Your task to perform on an android device: open app "Venmo" (install if not already installed), go to login, and select forgot password Image 0: 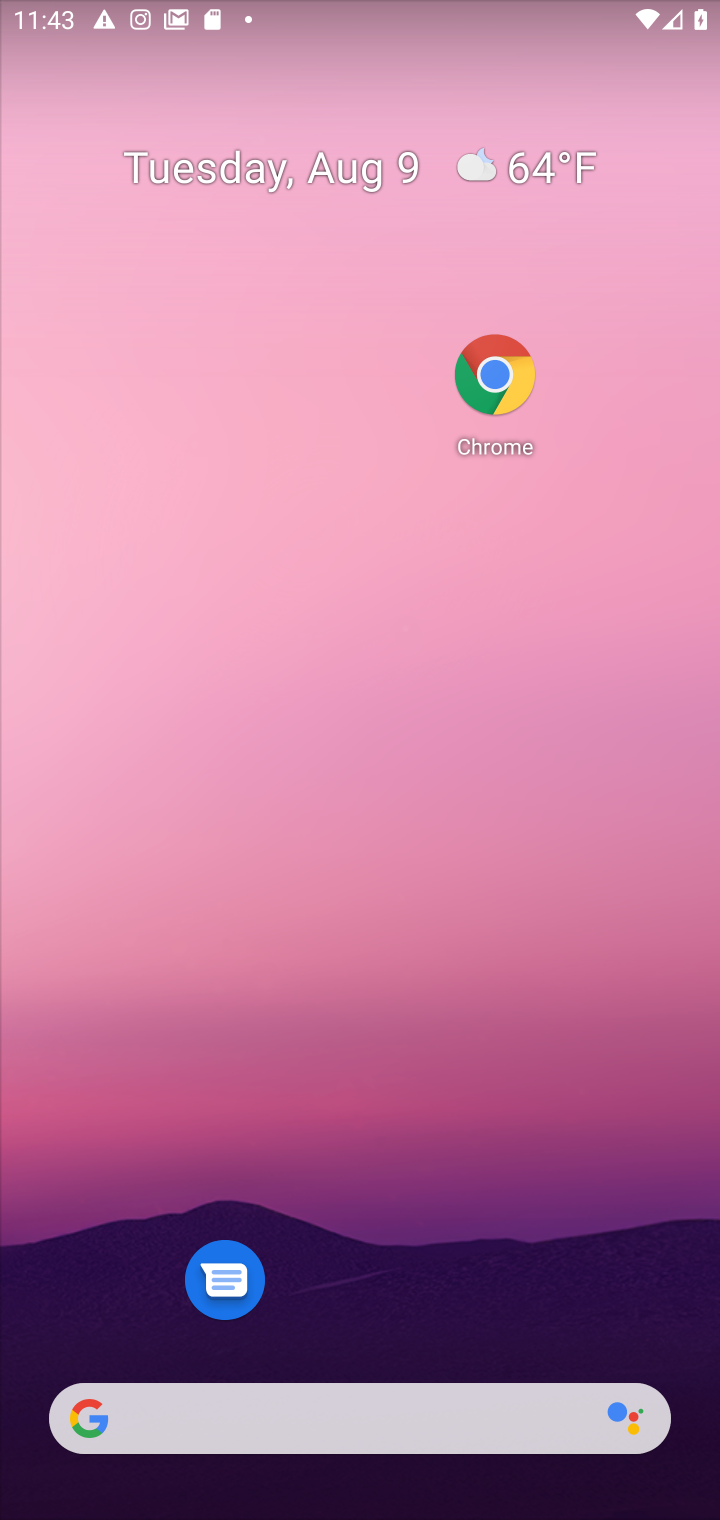
Step 0: drag from (404, 1385) to (396, 69)
Your task to perform on an android device: open app "Venmo" (install if not already installed), go to login, and select forgot password Image 1: 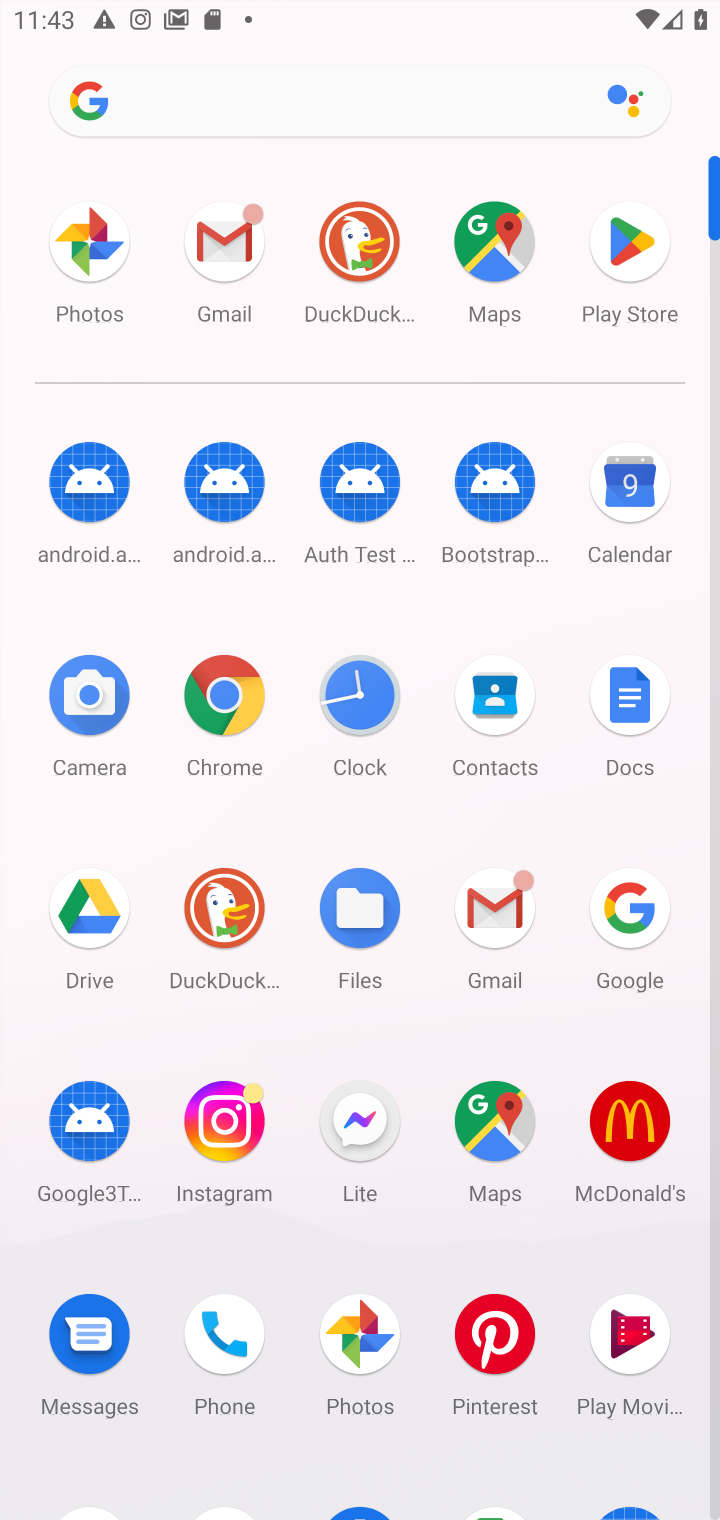
Step 1: drag from (305, 1244) to (305, 193)
Your task to perform on an android device: open app "Venmo" (install if not already installed), go to login, and select forgot password Image 2: 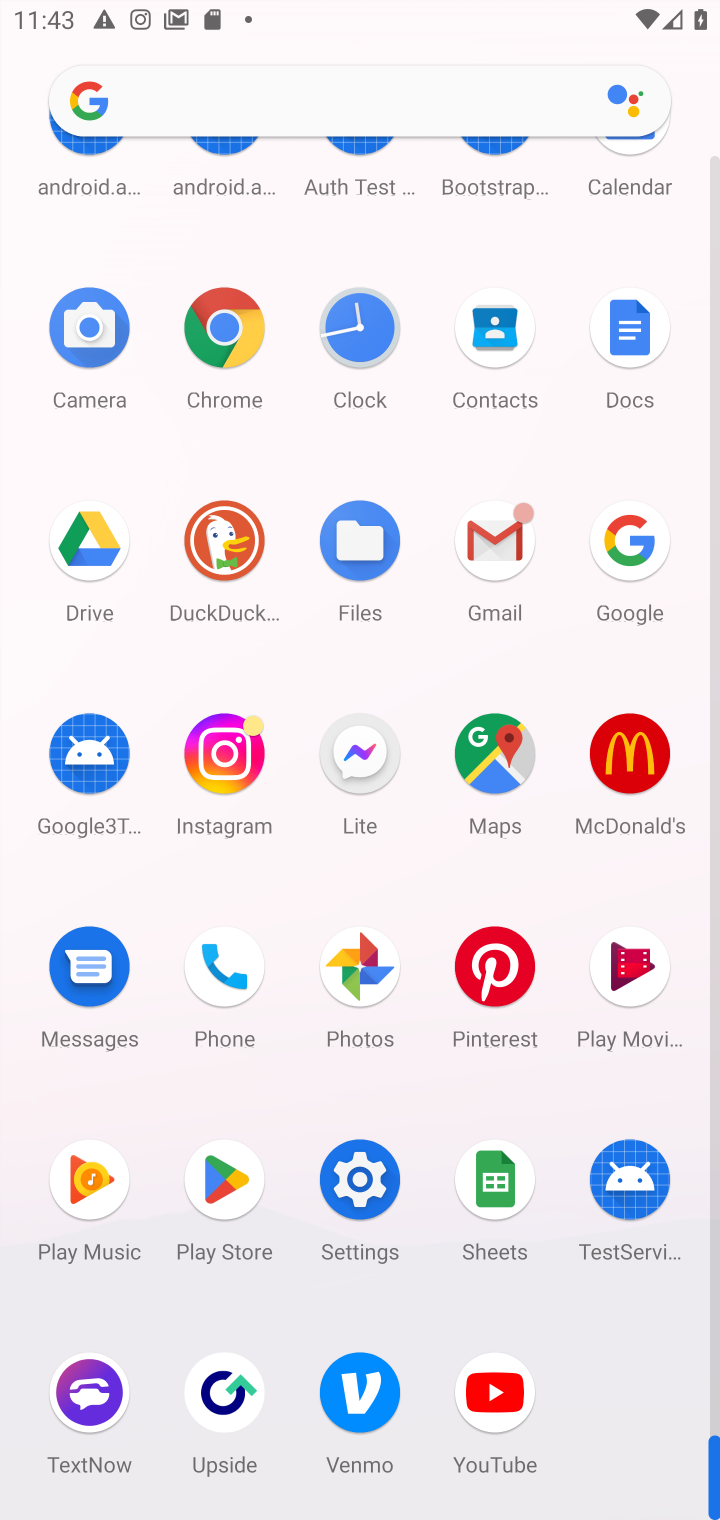
Step 2: click (216, 1182)
Your task to perform on an android device: open app "Venmo" (install if not already installed), go to login, and select forgot password Image 3: 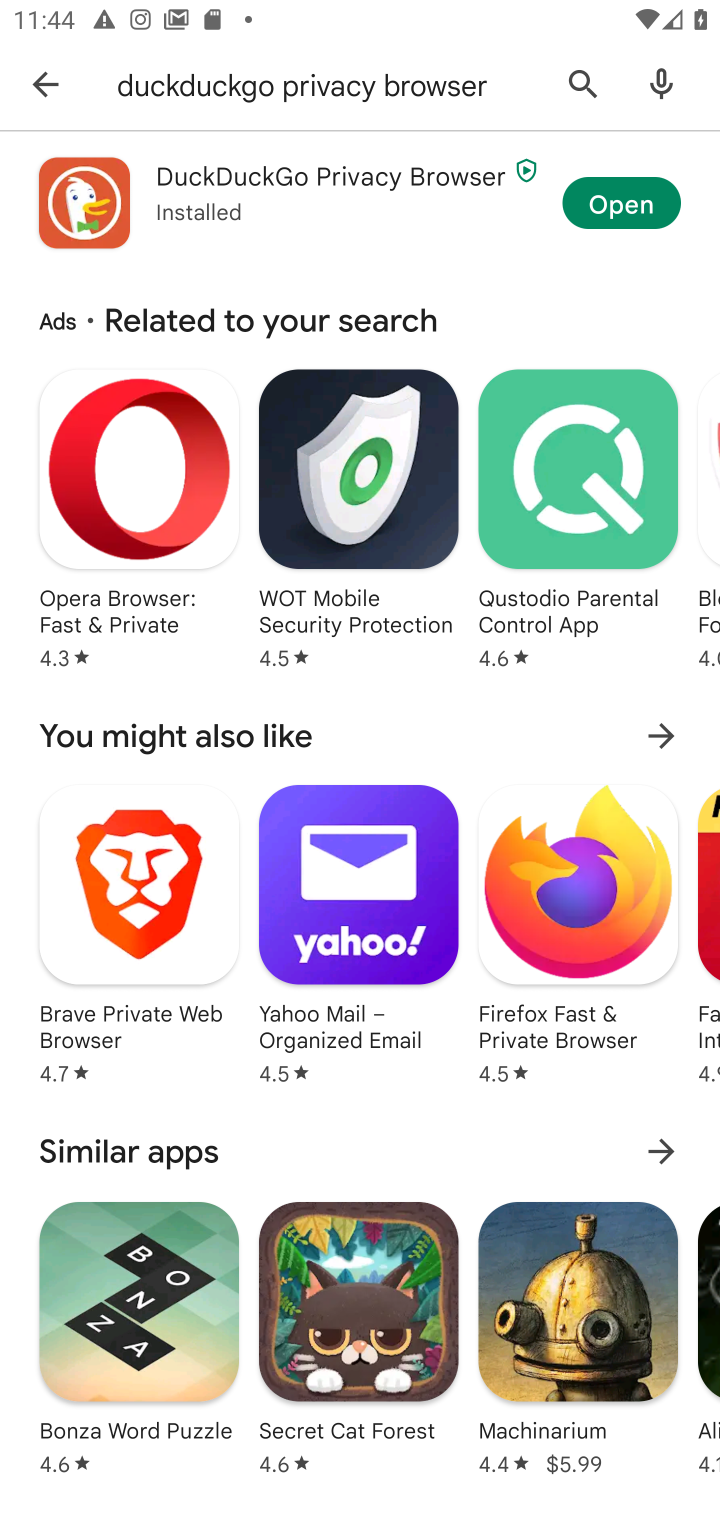
Step 3: click (35, 79)
Your task to perform on an android device: open app "Venmo" (install if not already installed), go to login, and select forgot password Image 4: 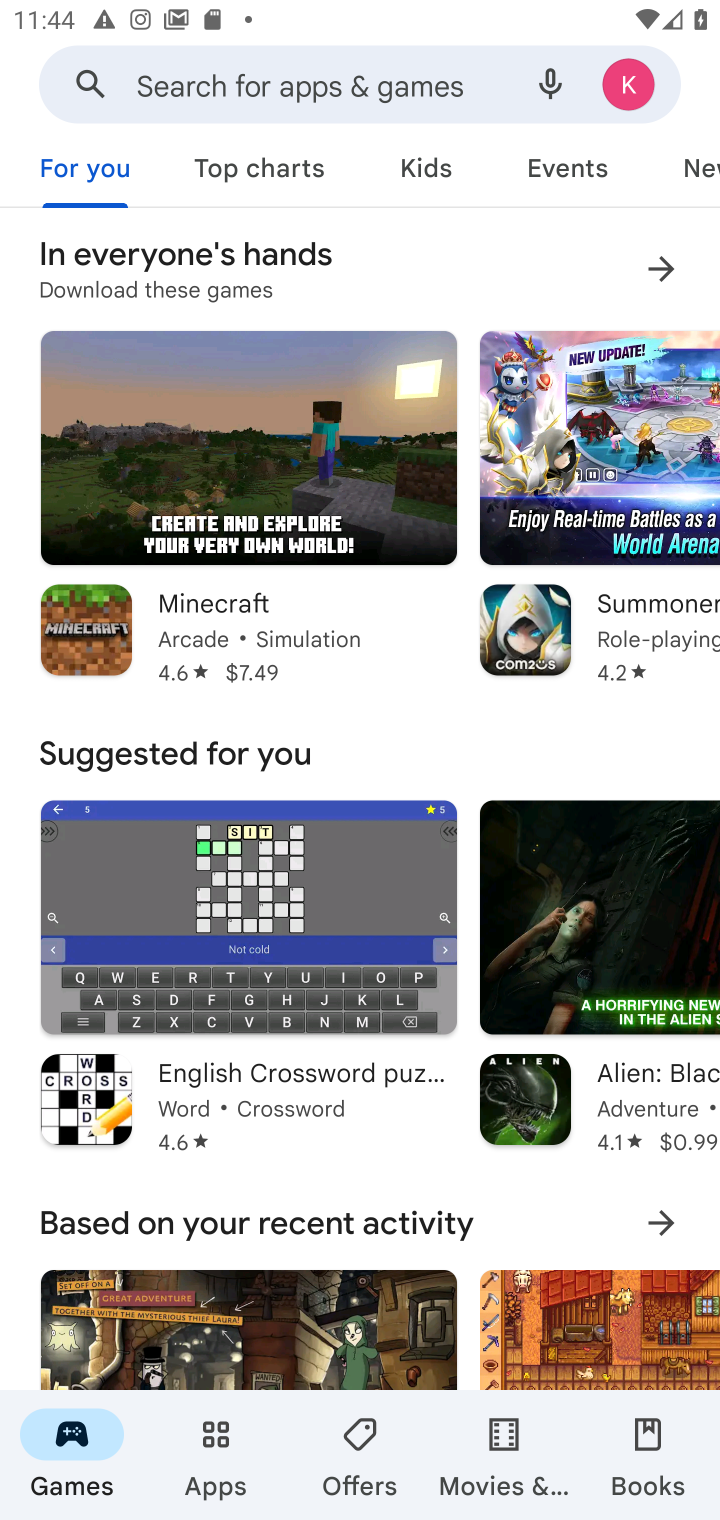
Step 4: click (285, 81)
Your task to perform on an android device: open app "Venmo" (install if not already installed), go to login, and select forgot password Image 5: 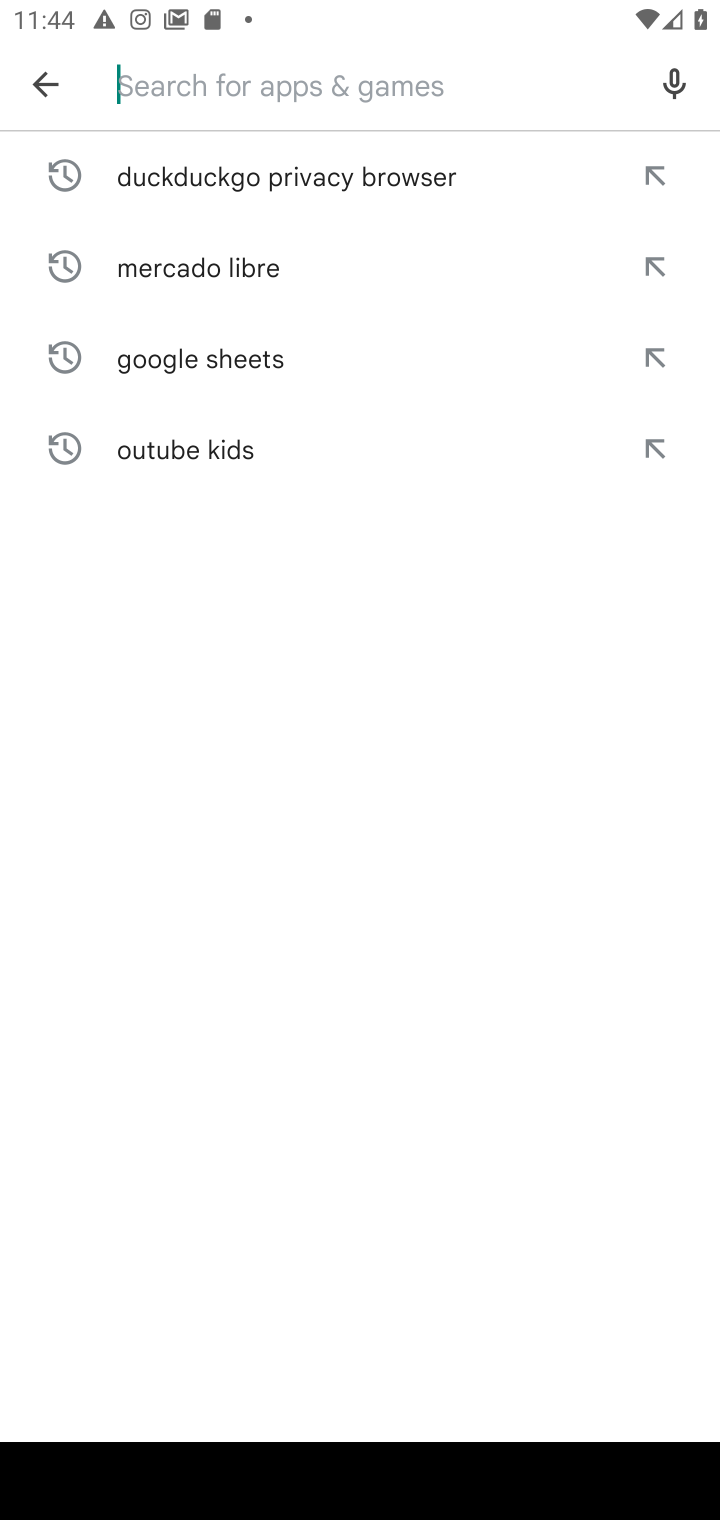
Step 5: type "Venmo"
Your task to perform on an android device: open app "Venmo" (install if not already installed), go to login, and select forgot password Image 6: 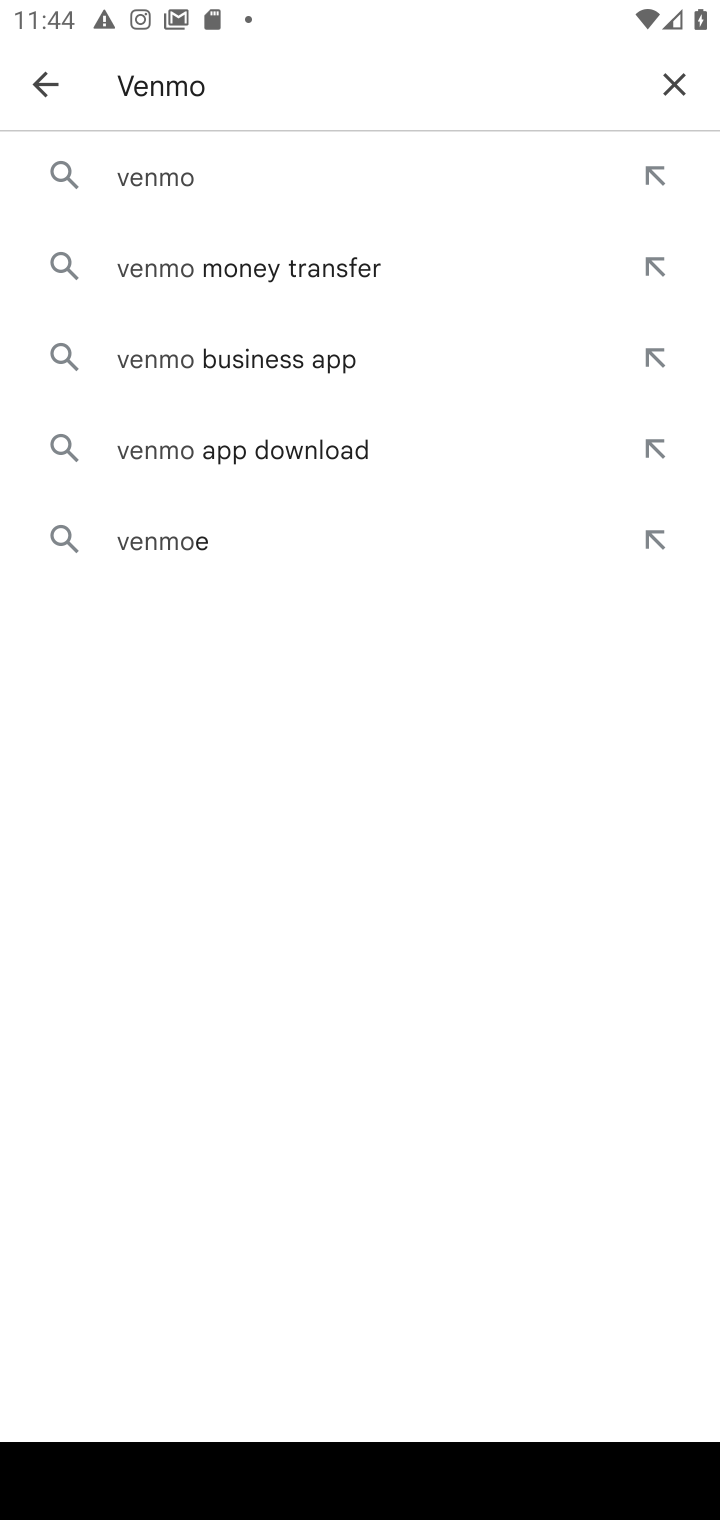
Step 6: click (232, 178)
Your task to perform on an android device: open app "Venmo" (install if not already installed), go to login, and select forgot password Image 7: 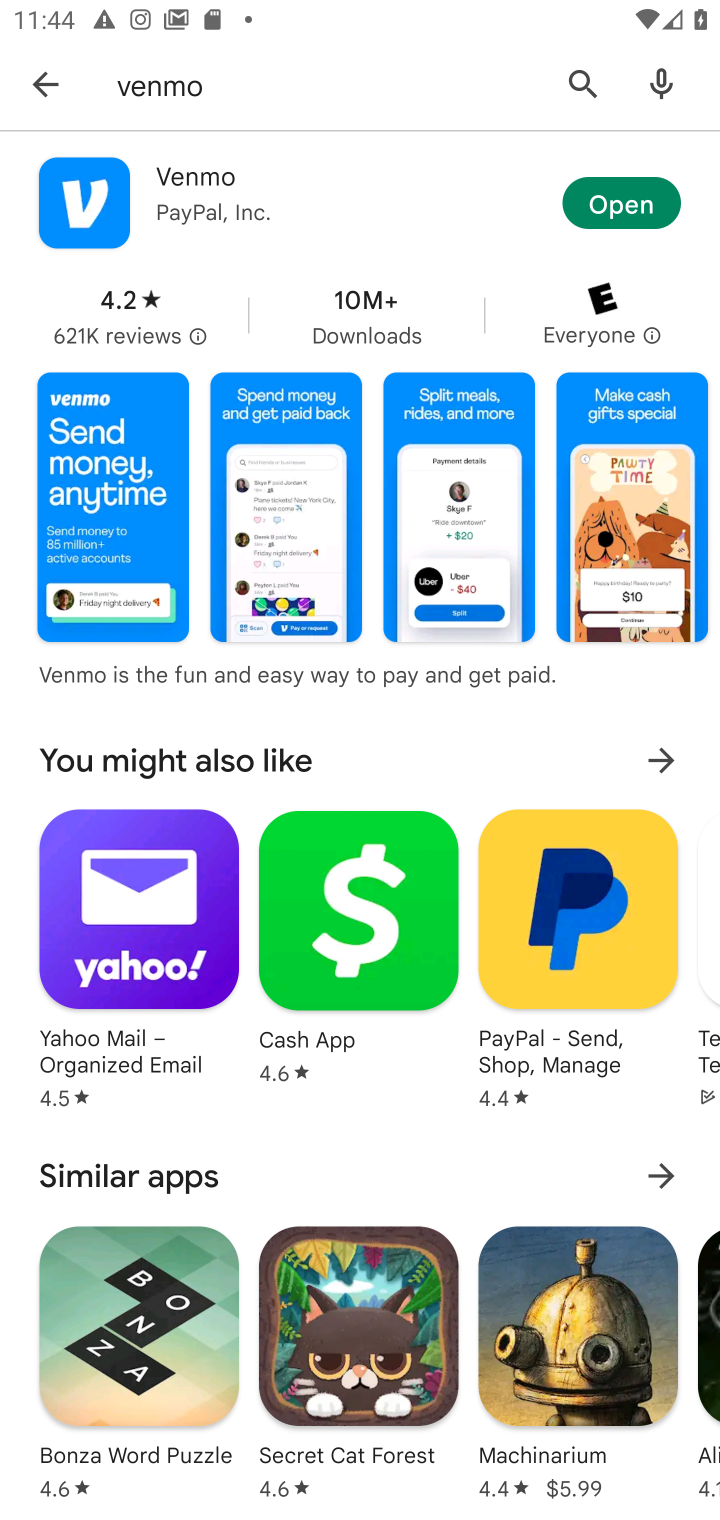
Step 7: click (645, 210)
Your task to perform on an android device: open app "Venmo" (install if not already installed), go to login, and select forgot password Image 8: 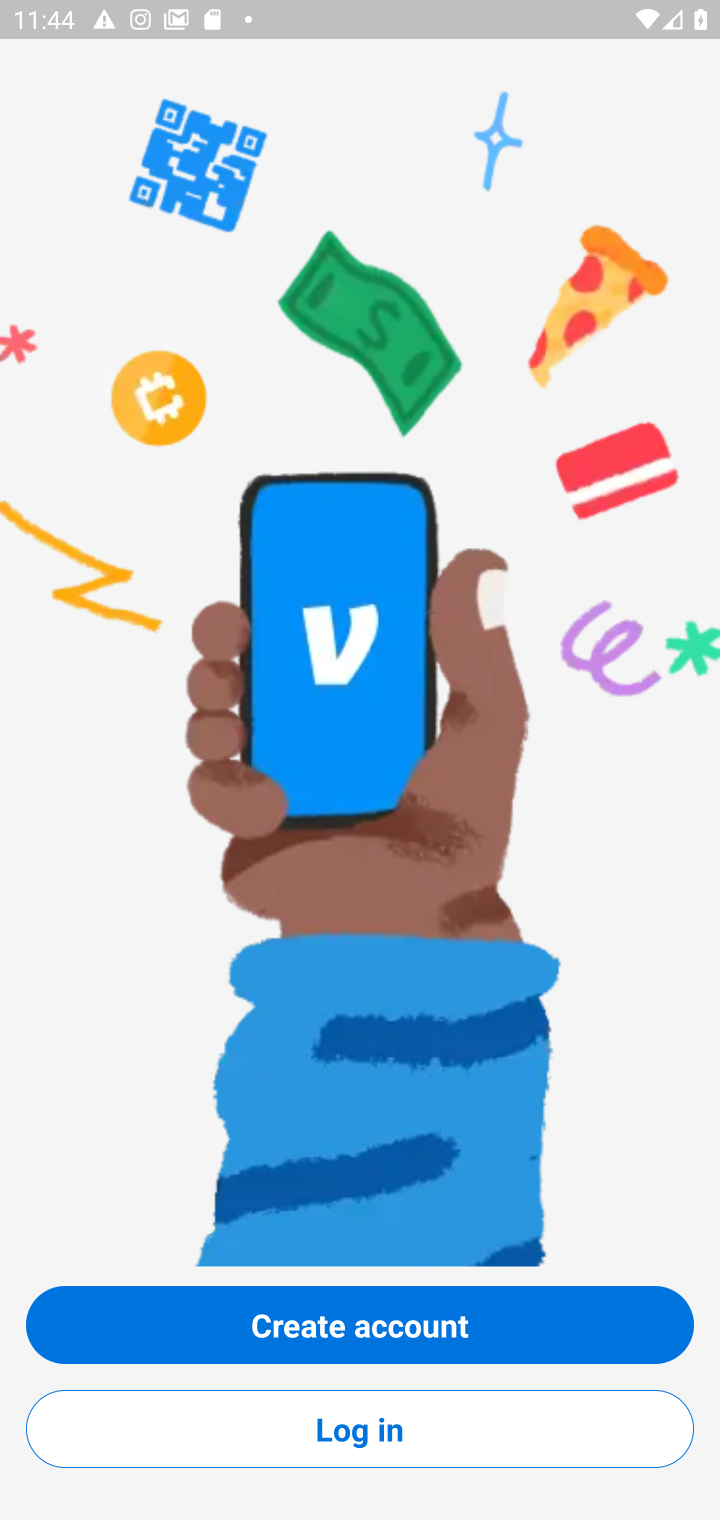
Step 8: click (404, 1440)
Your task to perform on an android device: open app "Venmo" (install if not already installed), go to login, and select forgot password Image 9: 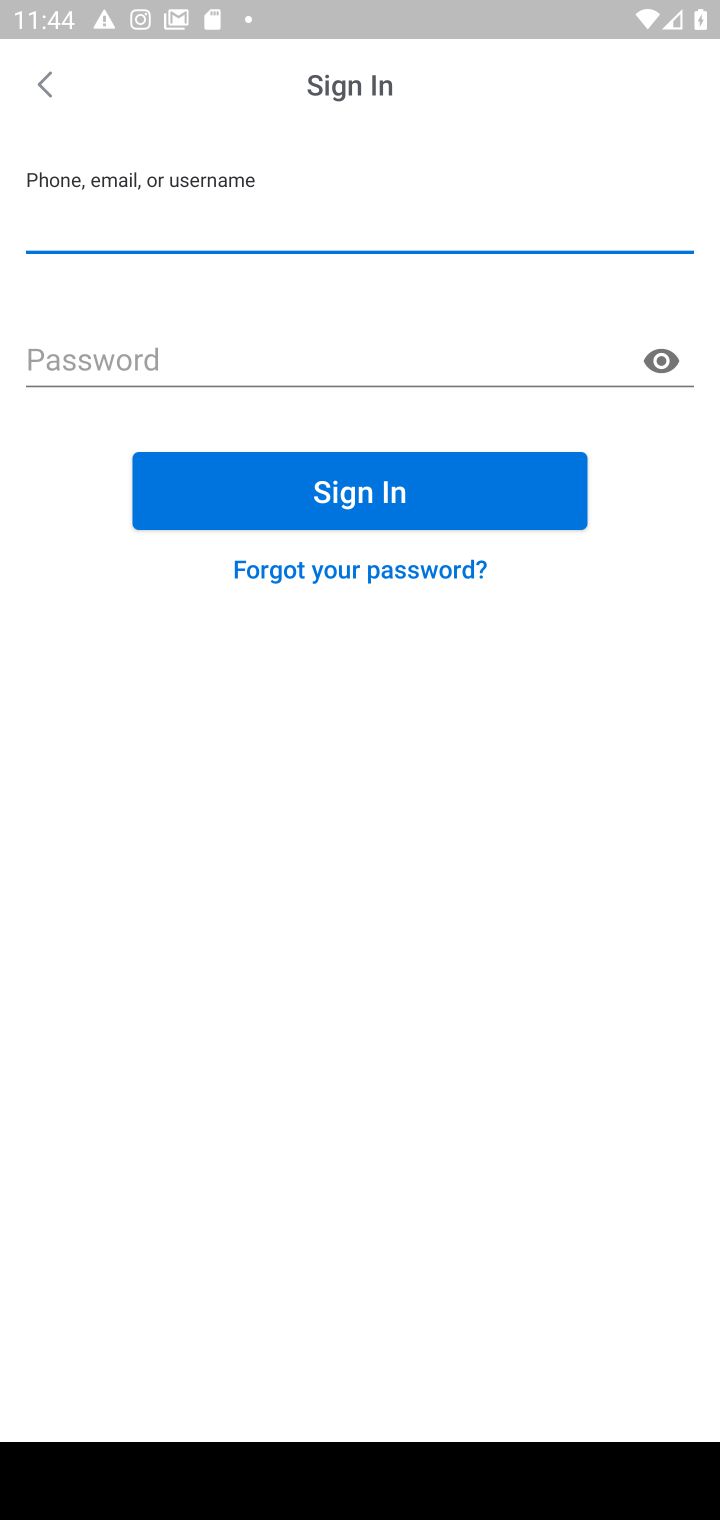
Step 9: click (368, 574)
Your task to perform on an android device: open app "Venmo" (install if not already installed), go to login, and select forgot password Image 10: 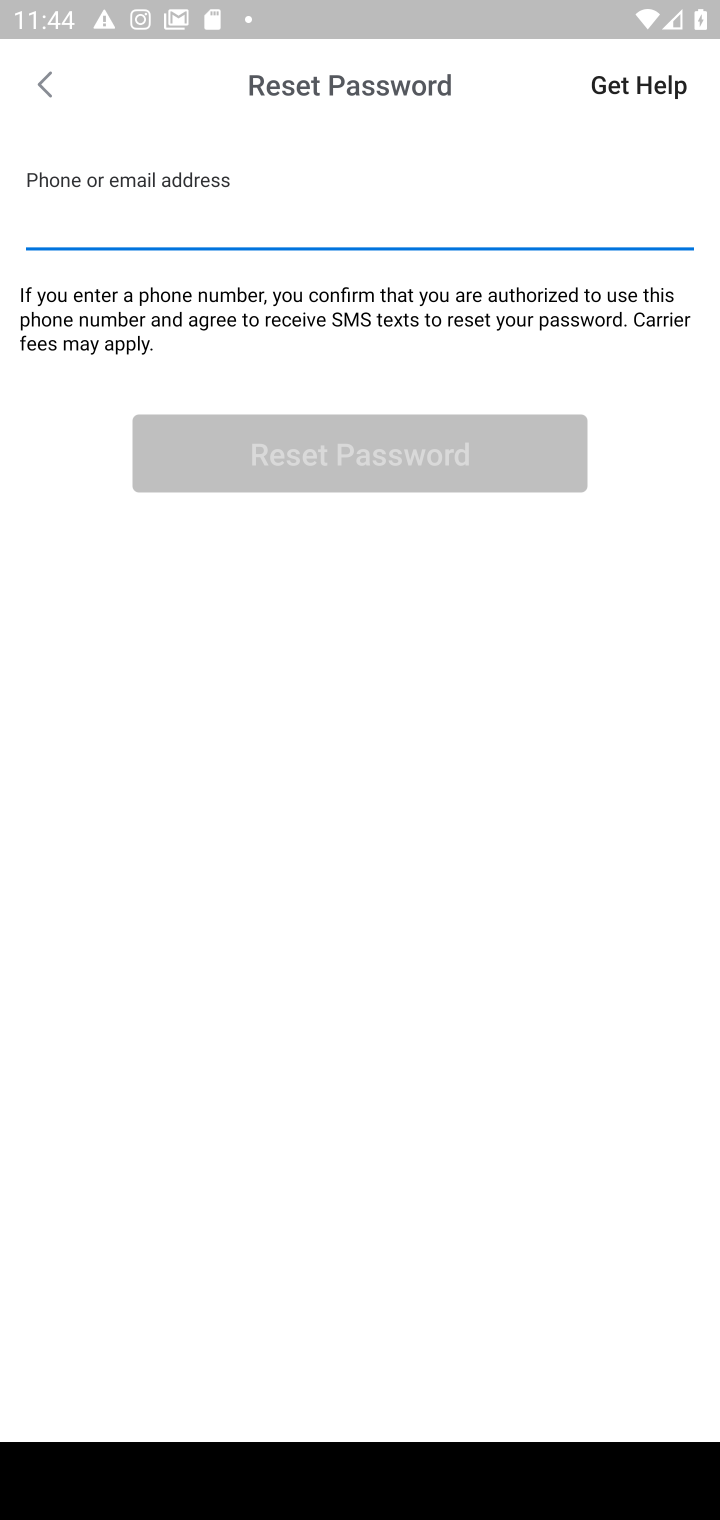
Step 10: task complete